Your task to perform on an android device: change the upload size in google photos Image 0: 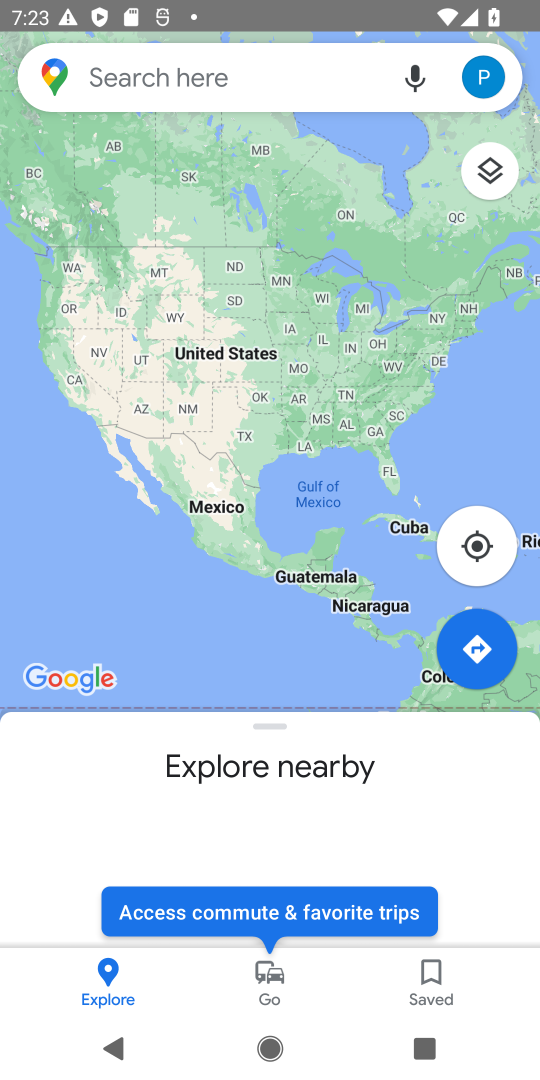
Step 0: press home button
Your task to perform on an android device: change the upload size in google photos Image 1: 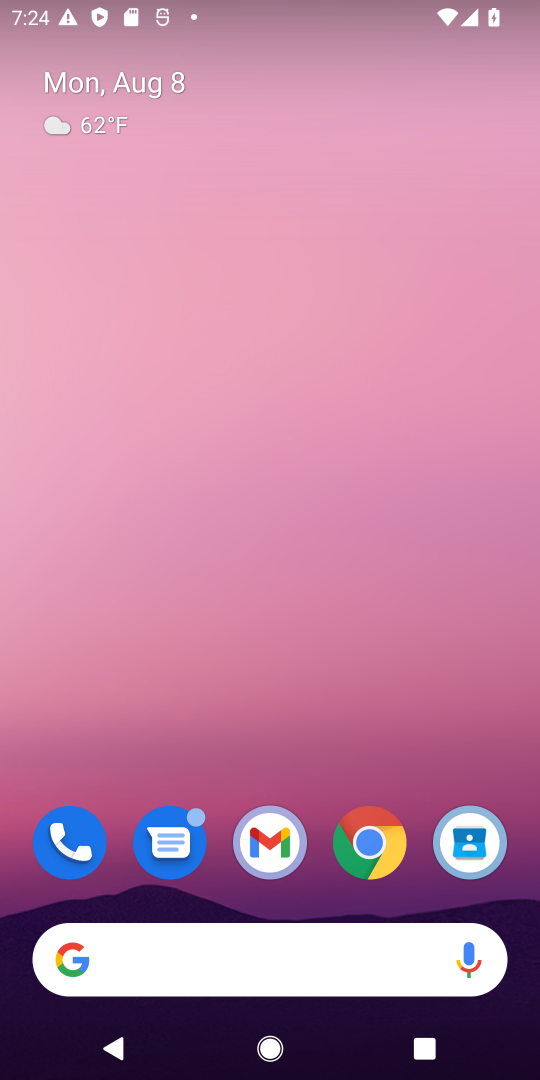
Step 1: drag from (367, 739) to (423, 7)
Your task to perform on an android device: change the upload size in google photos Image 2: 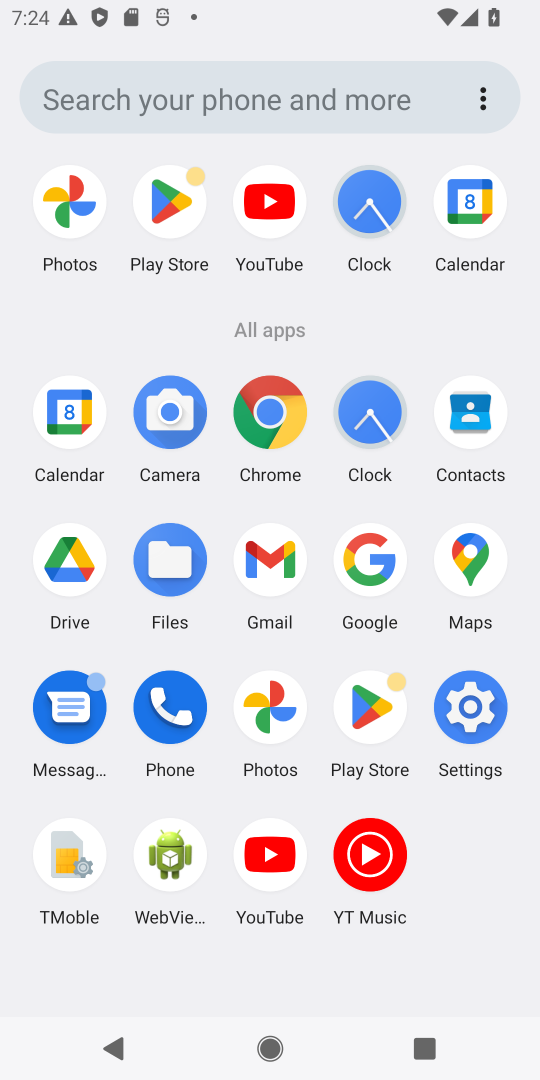
Step 2: click (266, 699)
Your task to perform on an android device: change the upload size in google photos Image 3: 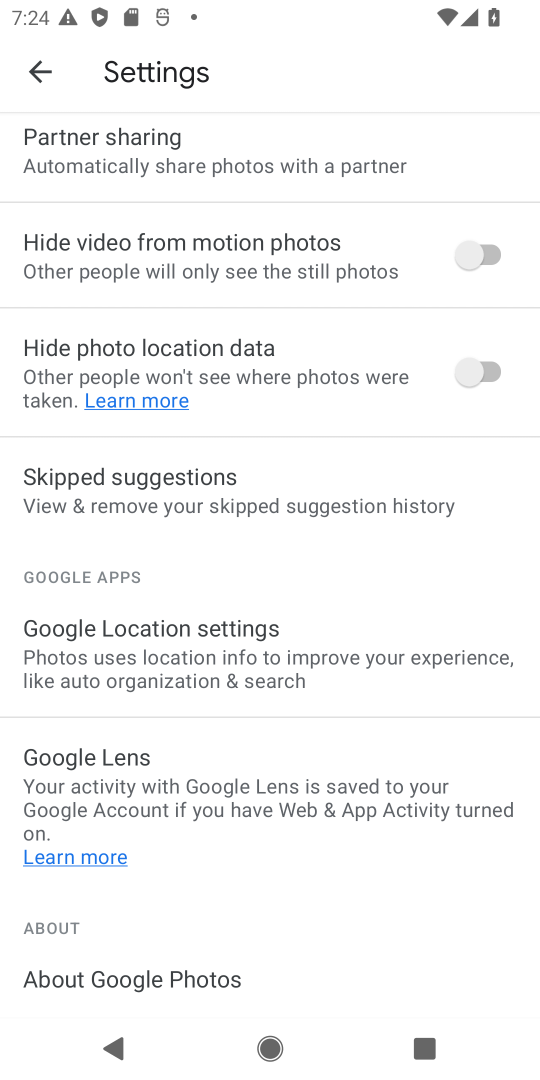
Step 3: click (47, 71)
Your task to perform on an android device: change the upload size in google photos Image 4: 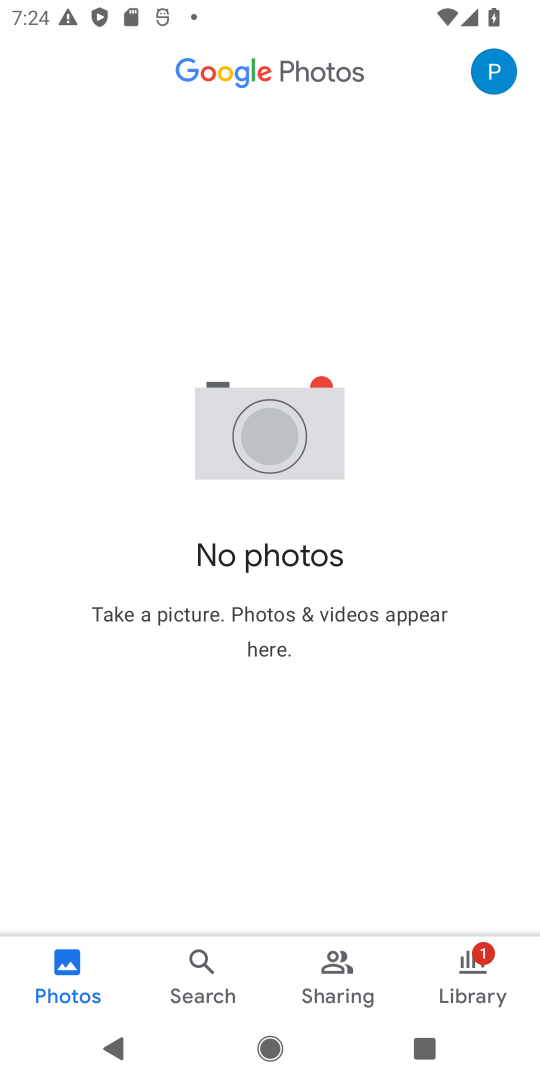
Step 4: click (486, 67)
Your task to perform on an android device: change the upload size in google photos Image 5: 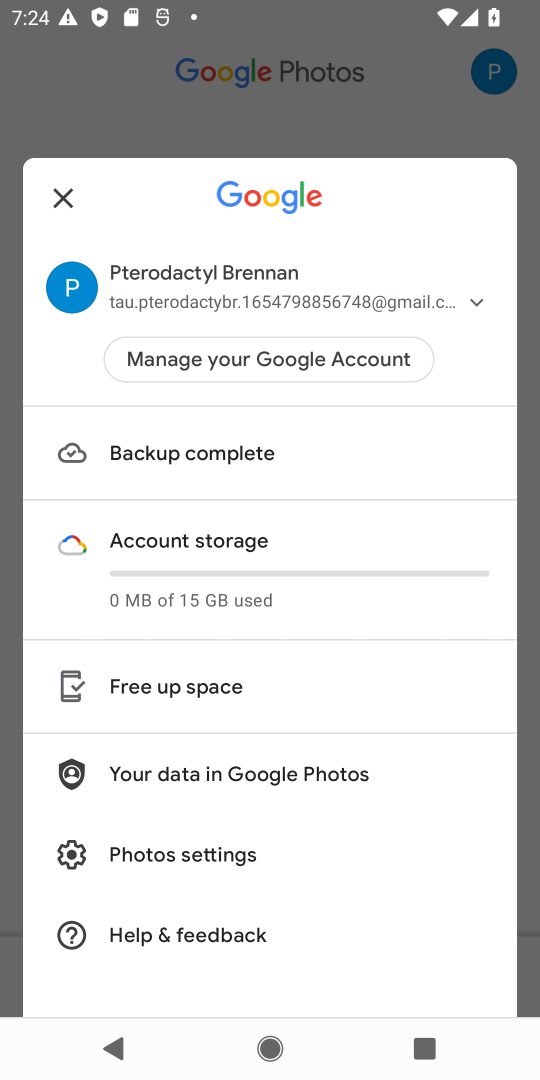
Step 5: click (250, 860)
Your task to perform on an android device: change the upload size in google photos Image 6: 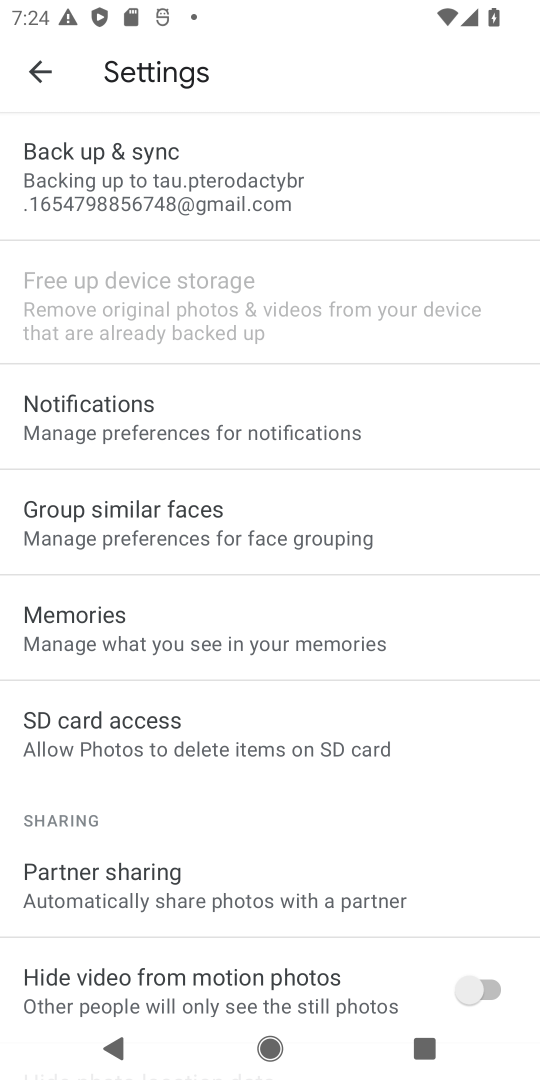
Step 6: click (185, 177)
Your task to perform on an android device: change the upload size in google photos Image 7: 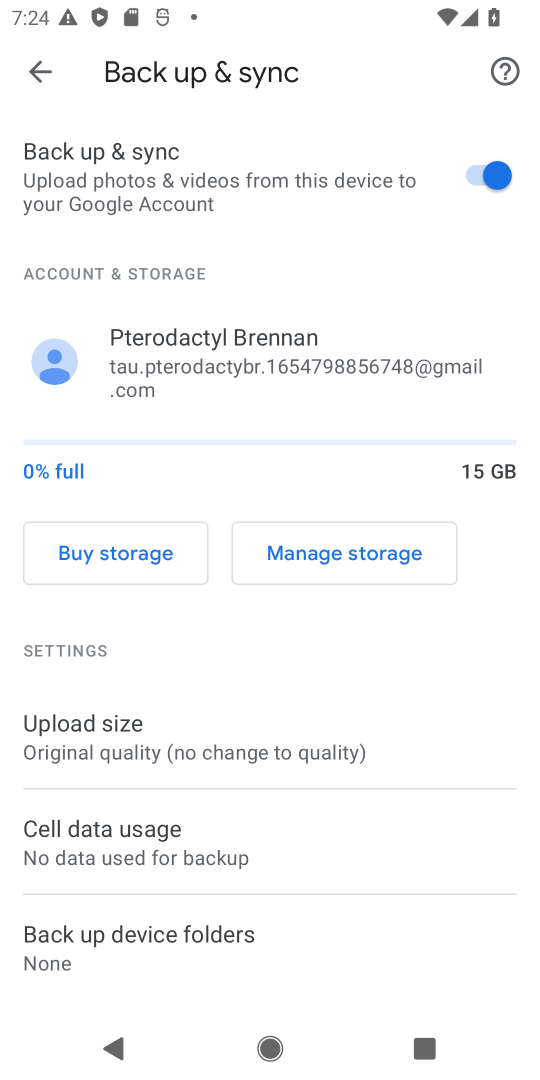
Step 7: click (185, 744)
Your task to perform on an android device: change the upload size in google photos Image 8: 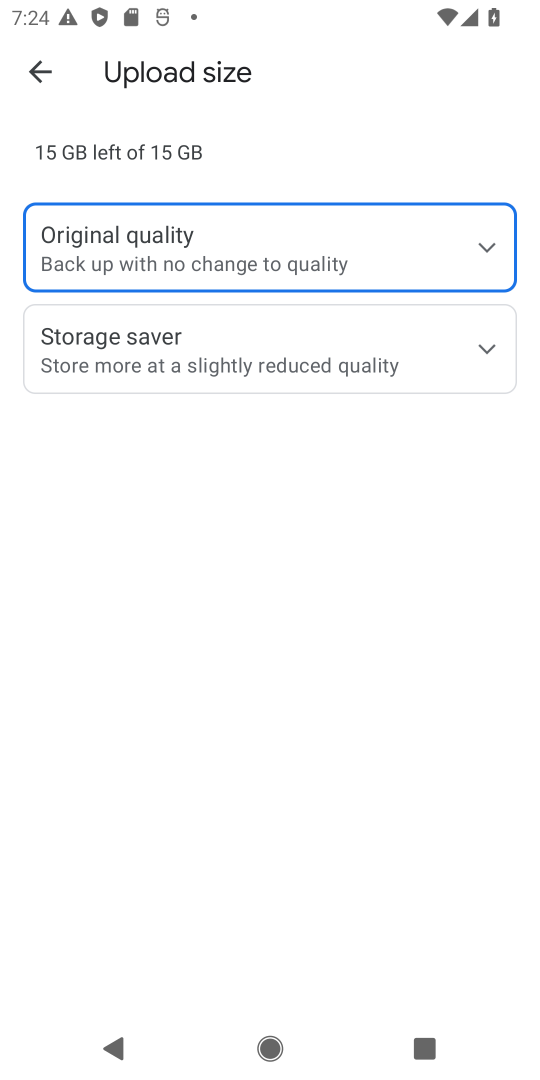
Step 8: click (204, 323)
Your task to perform on an android device: change the upload size in google photos Image 9: 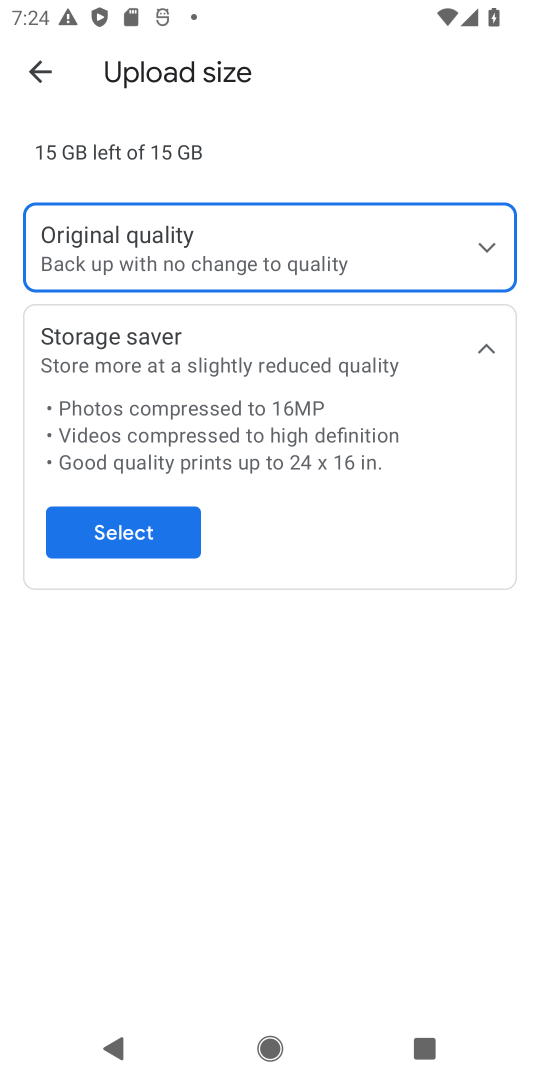
Step 9: click (191, 360)
Your task to perform on an android device: change the upload size in google photos Image 10: 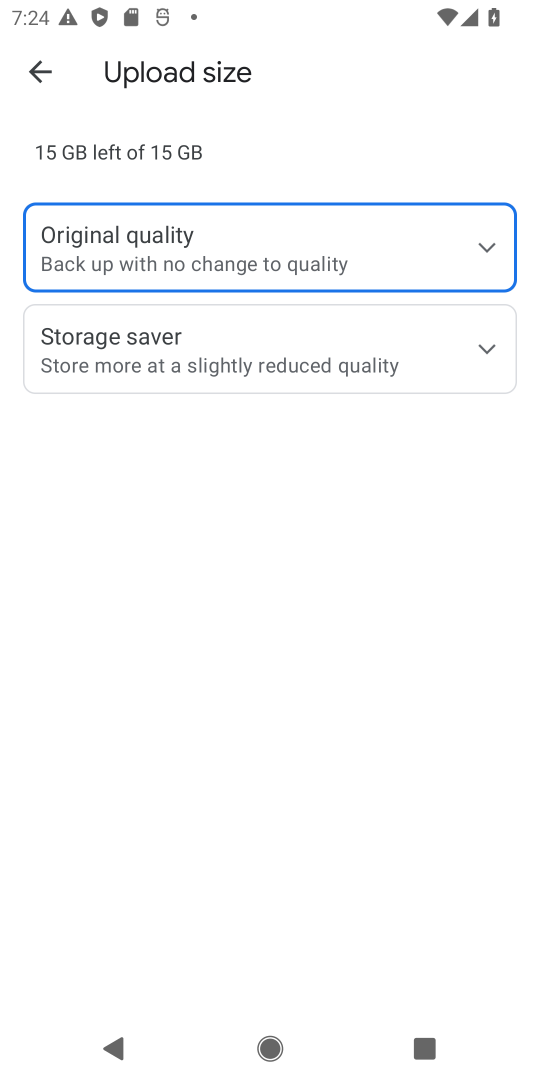
Step 10: click (131, 349)
Your task to perform on an android device: change the upload size in google photos Image 11: 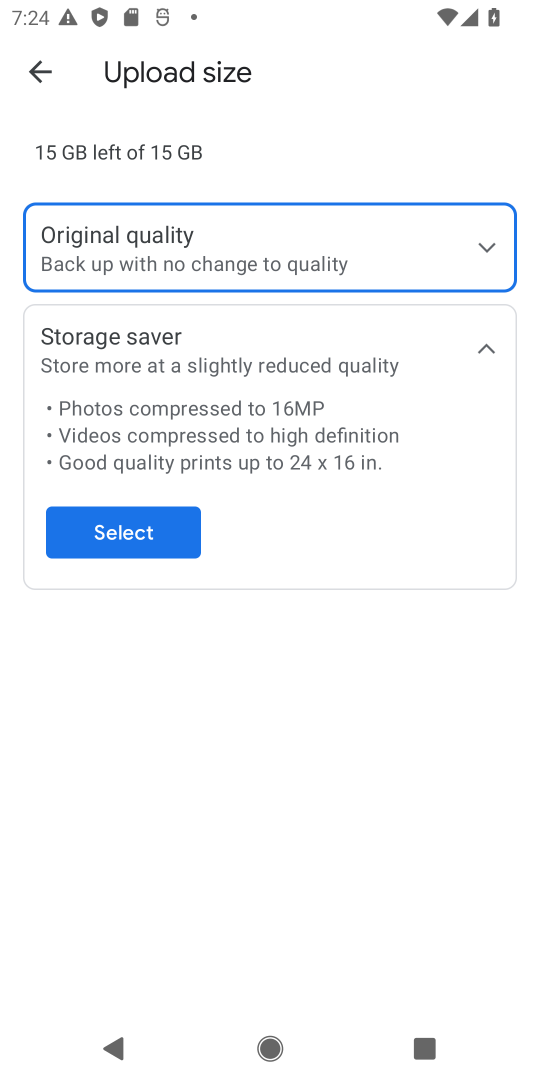
Step 11: click (141, 543)
Your task to perform on an android device: change the upload size in google photos Image 12: 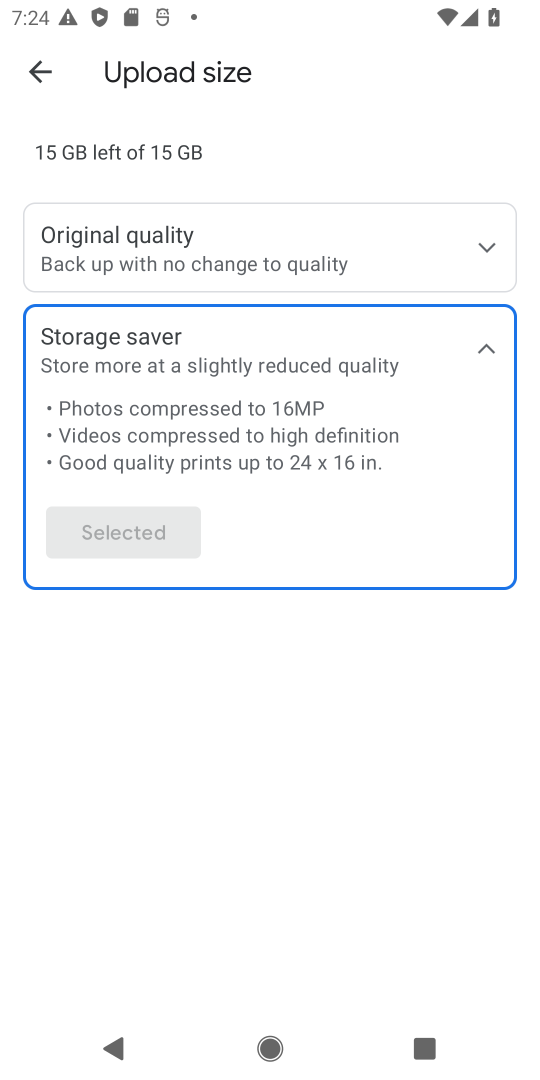
Step 12: task complete